Your task to perform on an android device: refresh tabs in the chrome app Image 0: 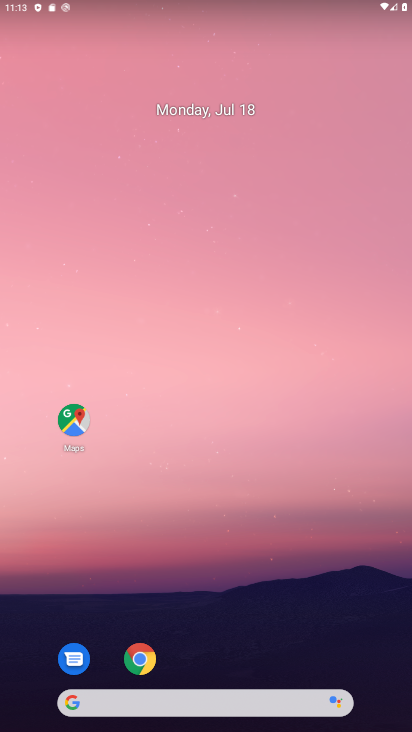
Step 0: click (141, 669)
Your task to perform on an android device: refresh tabs in the chrome app Image 1: 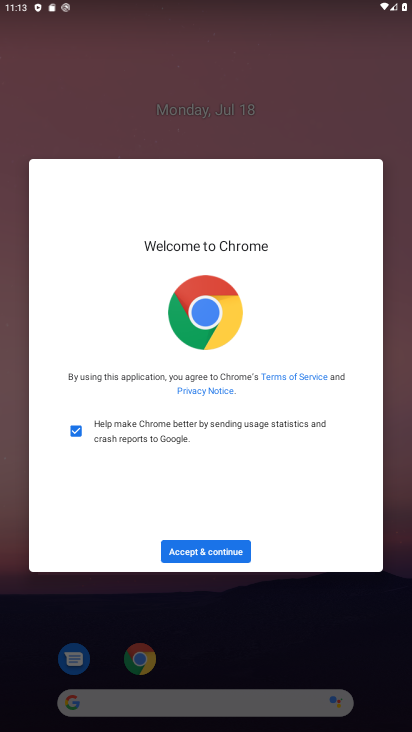
Step 1: click (226, 556)
Your task to perform on an android device: refresh tabs in the chrome app Image 2: 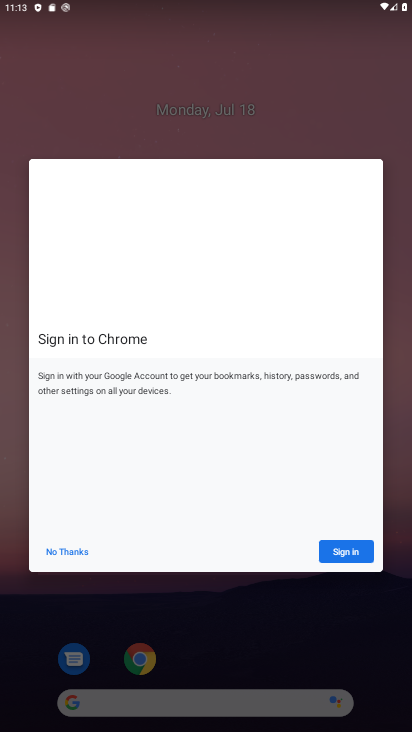
Step 2: drag from (339, 562) to (301, 559)
Your task to perform on an android device: refresh tabs in the chrome app Image 3: 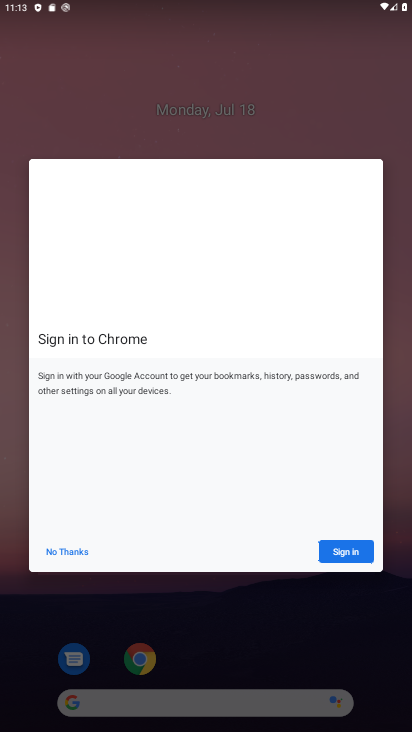
Step 3: click (78, 551)
Your task to perform on an android device: refresh tabs in the chrome app Image 4: 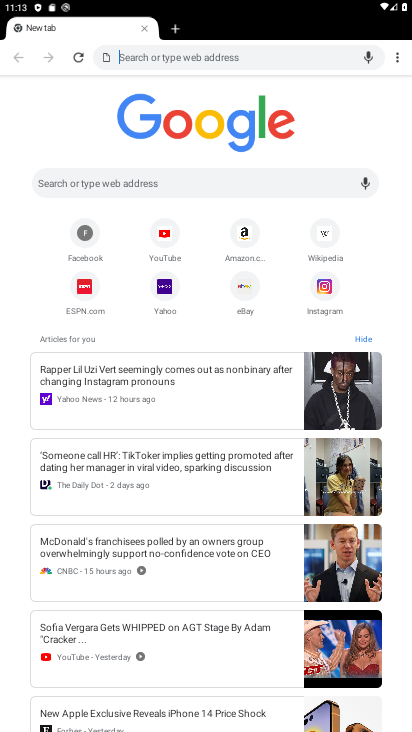
Step 4: click (79, 61)
Your task to perform on an android device: refresh tabs in the chrome app Image 5: 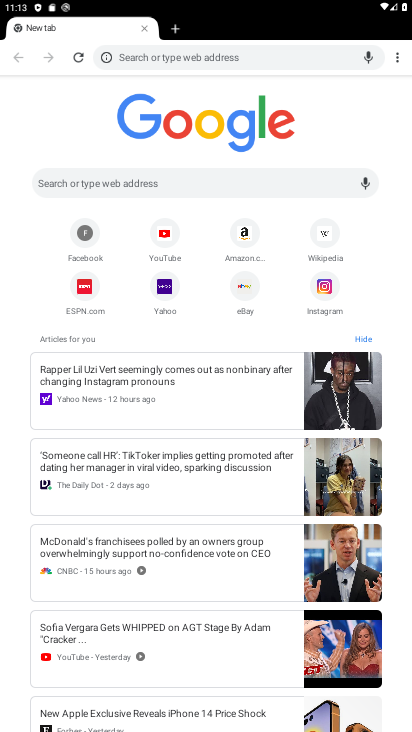
Step 5: task complete